Your task to perform on an android device: Show me productivity apps on the Play Store Image 0: 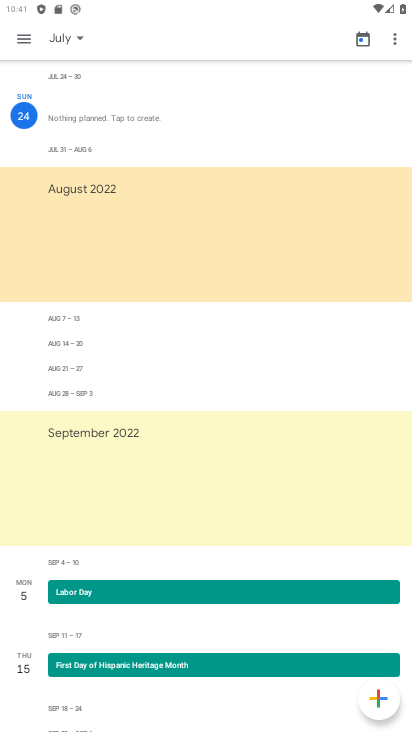
Step 0: press home button
Your task to perform on an android device: Show me productivity apps on the Play Store Image 1: 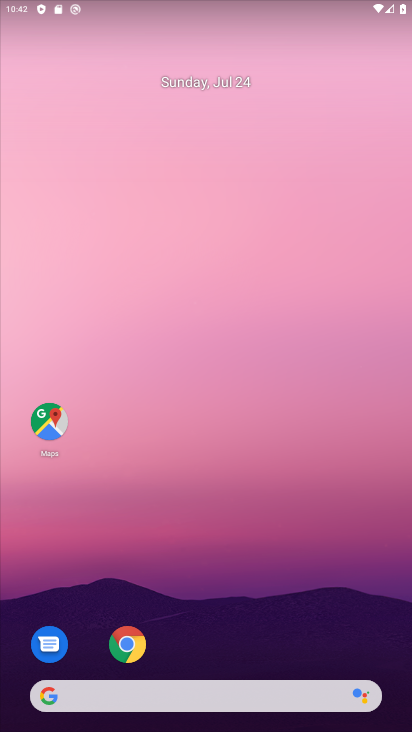
Step 1: drag from (264, 661) to (271, 14)
Your task to perform on an android device: Show me productivity apps on the Play Store Image 2: 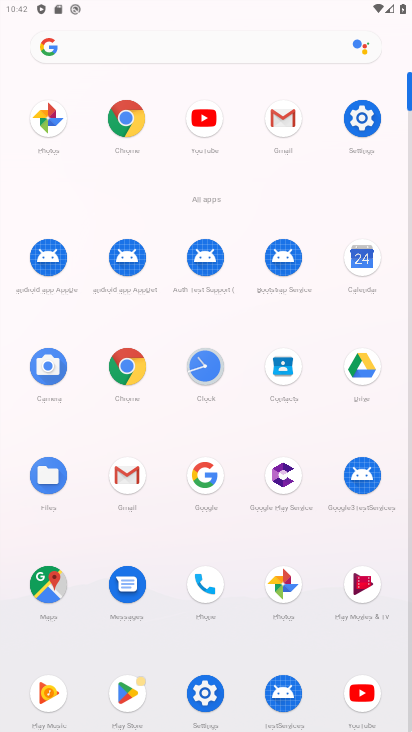
Step 2: click (410, 586)
Your task to perform on an android device: Show me productivity apps on the Play Store Image 3: 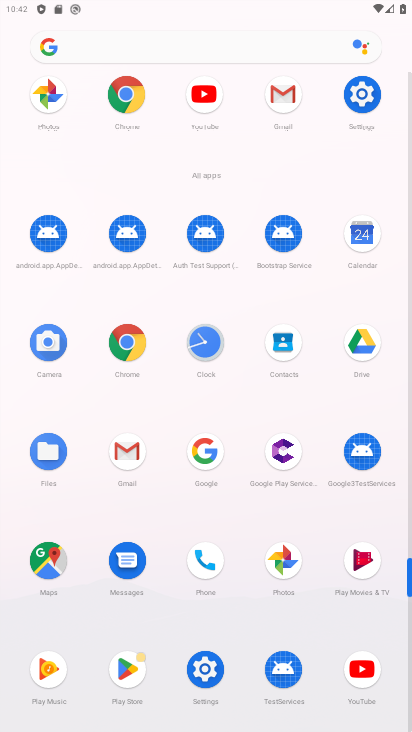
Step 3: click (122, 674)
Your task to perform on an android device: Show me productivity apps on the Play Store Image 4: 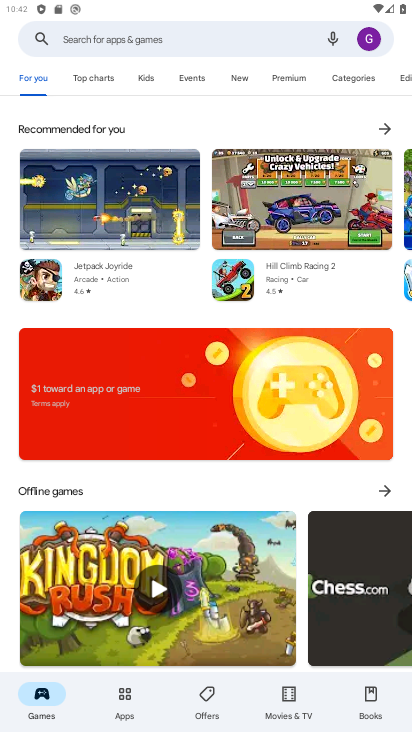
Step 4: click (114, 713)
Your task to perform on an android device: Show me productivity apps on the Play Store Image 5: 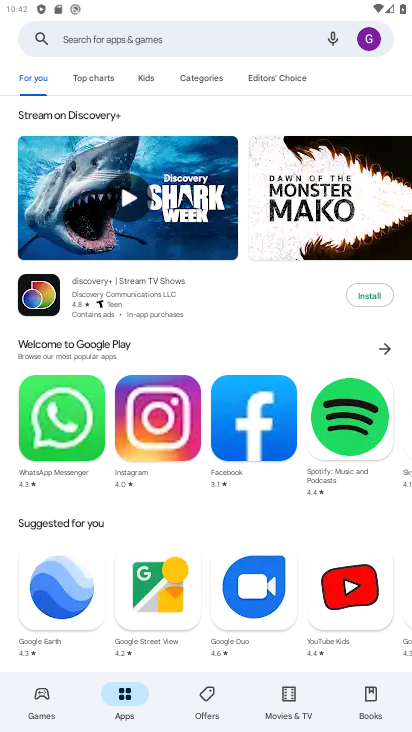
Step 5: click (197, 85)
Your task to perform on an android device: Show me productivity apps on the Play Store Image 6: 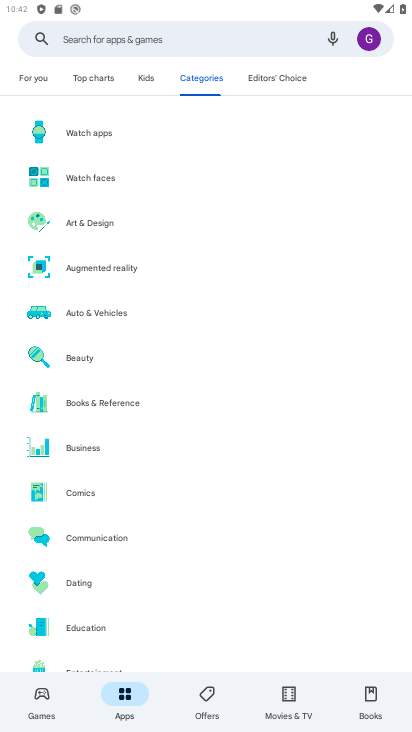
Step 6: drag from (128, 566) to (148, 199)
Your task to perform on an android device: Show me productivity apps on the Play Store Image 7: 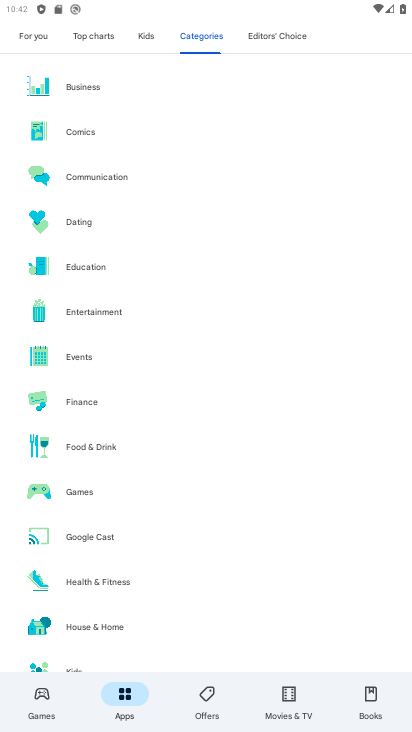
Step 7: drag from (168, 521) to (159, 148)
Your task to perform on an android device: Show me productivity apps on the Play Store Image 8: 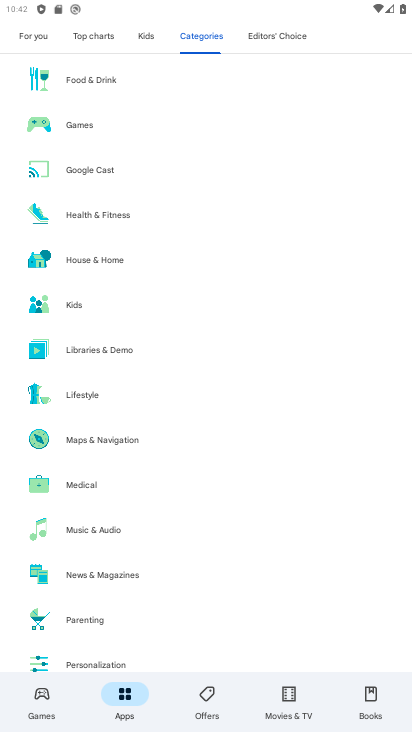
Step 8: drag from (159, 581) to (140, 225)
Your task to perform on an android device: Show me productivity apps on the Play Store Image 9: 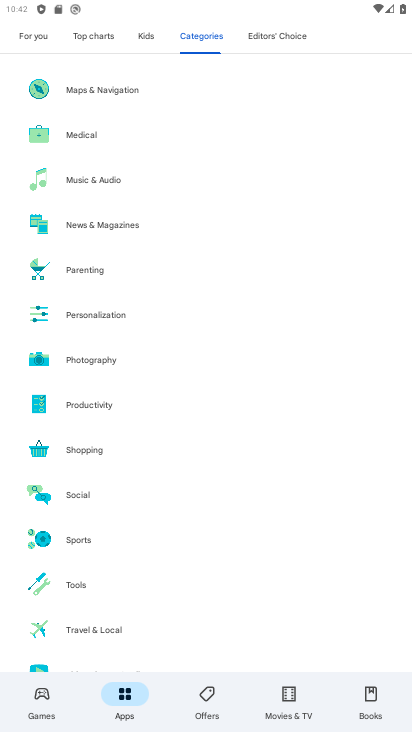
Step 9: click (67, 404)
Your task to perform on an android device: Show me productivity apps on the Play Store Image 10: 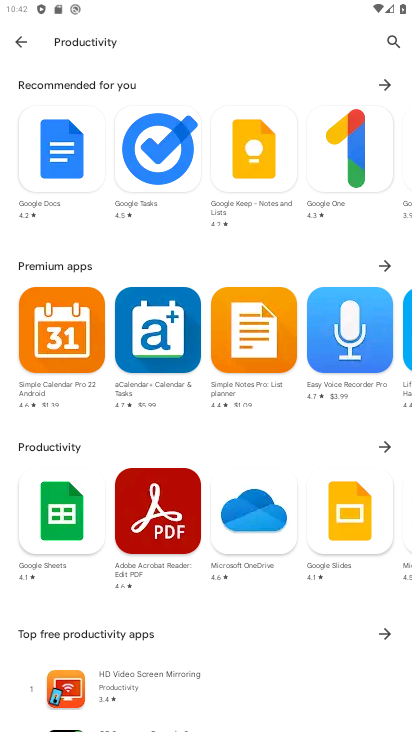
Step 10: task complete